Your task to perform on an android device: toggle sleep mode Image 0: 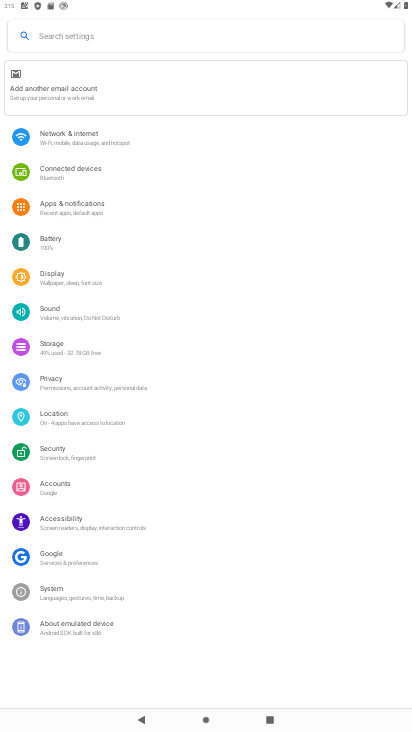
Step 0: press home button
Your task to perform on an android device: toggle sleep mode Image 1: 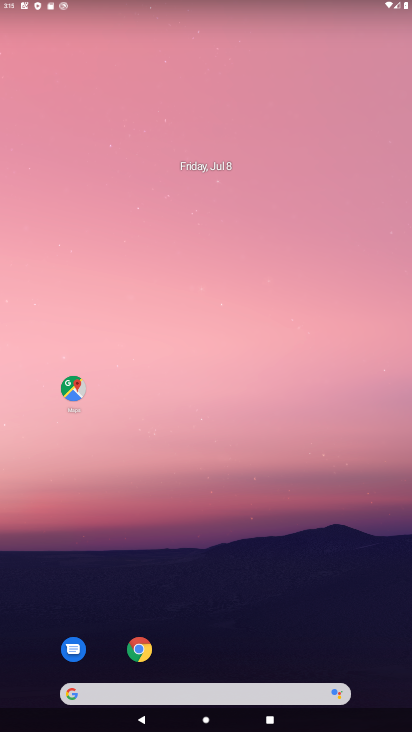
Step 1: drag from (213, 599) to (169, 182)
Your task to perform on an android device: toggle sleep mode Image 2: 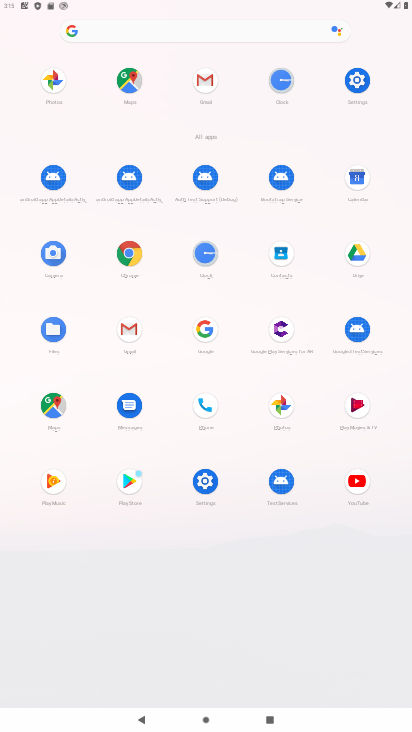
Step 2: click (355, 81)
Your task to perform on an android device: toggle sleep mode Image 3: 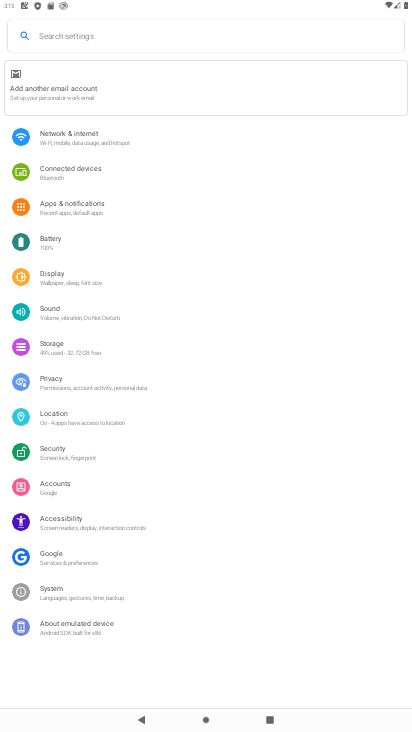
Step 3: click (98, 283)
Your task to perform on an android device: toggle sleep mode Image 4: 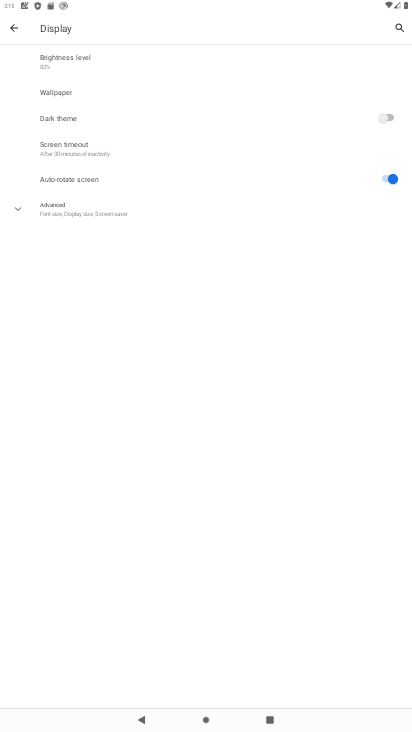
Step 4: click (68, 209)
Your task to perform on an android device: toggle sleep mode Image 5: 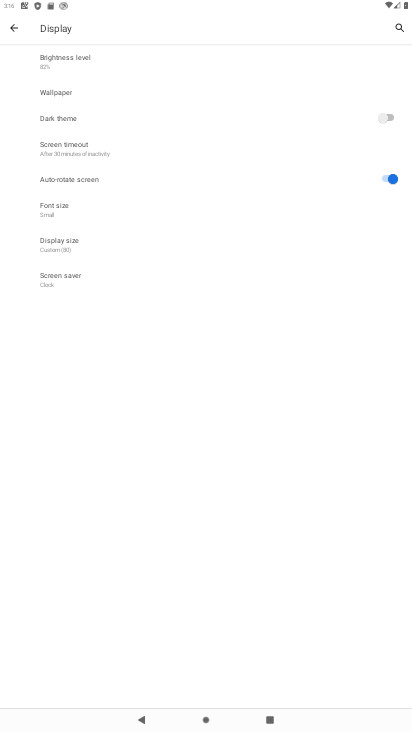
Step 5: task complete